Your task to perform on an android device: change notifications settings Image 0: 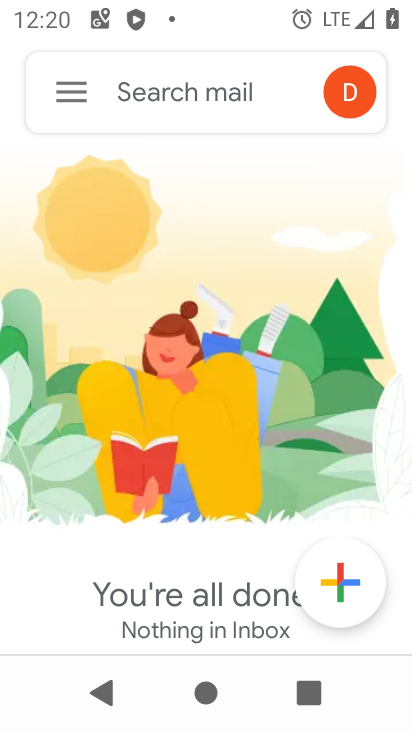
Step 0: press home button
Your task to perform on an android device: change notifications settings Image 1: 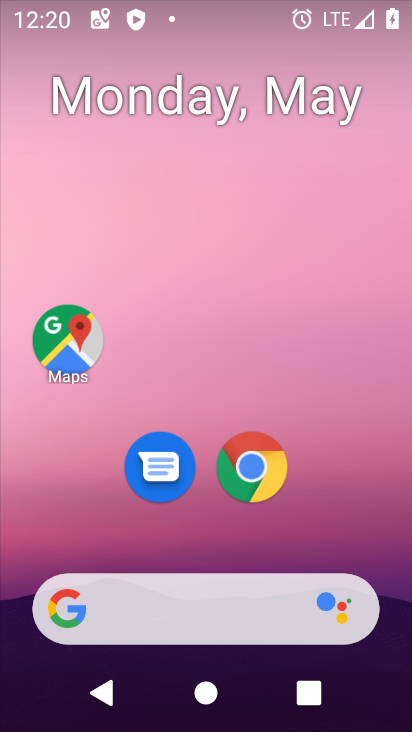
Step 1: drag from (353, 555) to (324, 0)
Your task to perform on an android device: change notifications settings Image 2: 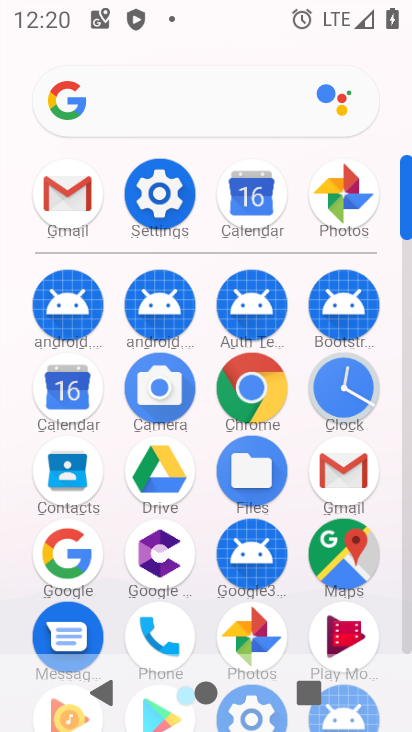
Step 2: click (163, 202)
Your task to perform on an android device: change notifications settings Image 3: 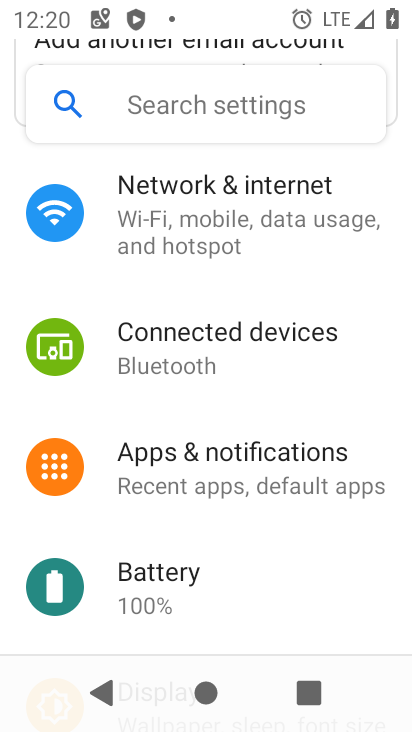
Step 3: click (259, 461)
Your task to perform on an android device: change notifications settings Image 4: 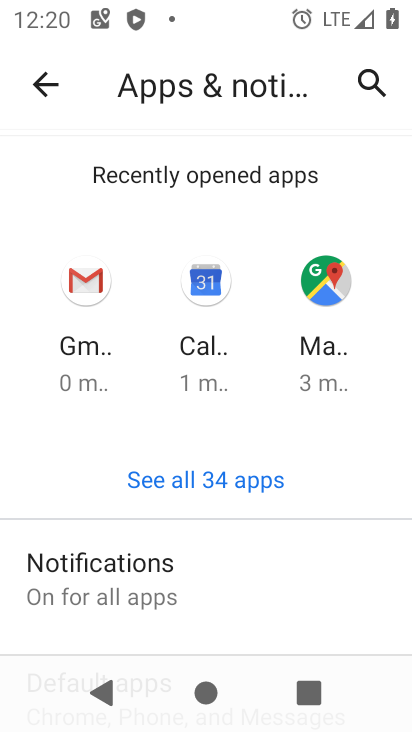
Step 4: click (118, 590)
Your task to perform on an android device: change notifications settings Image 5: 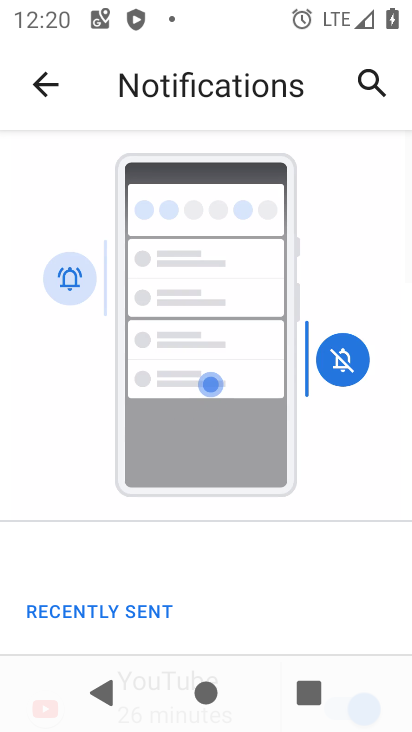
Step 5: drag from (252, 596) to (239, 103)
Your task to perform on an android device: change notifications settings Image 6: 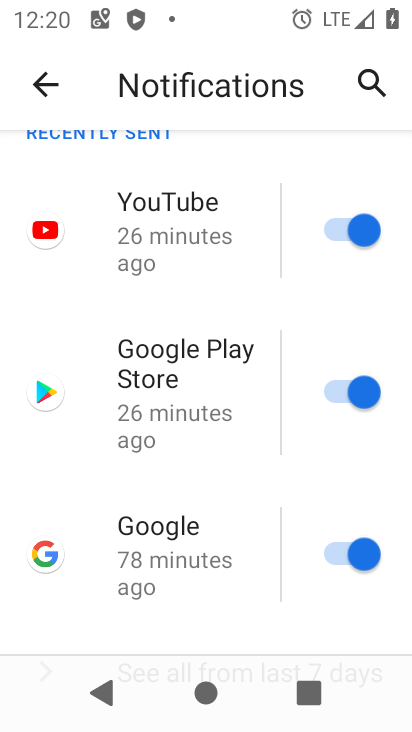
Step 6: drag from (216, 526) to (216, 113)
Your task to perform on an android device: change notifications settings Image 7: 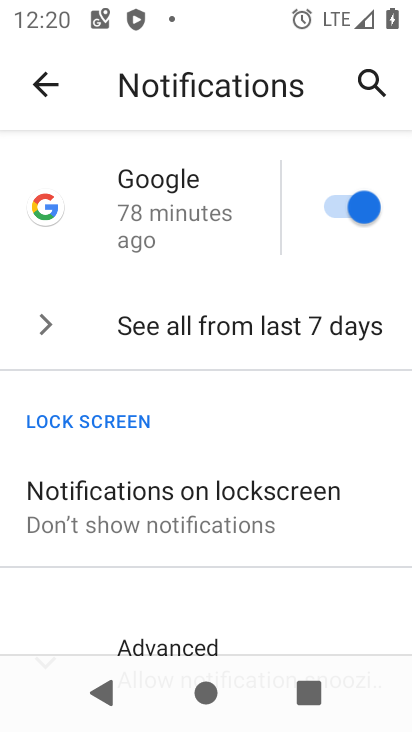
Step 7: click (219, 329)
Your task to perform on an android device: change notifications settings Image 8: 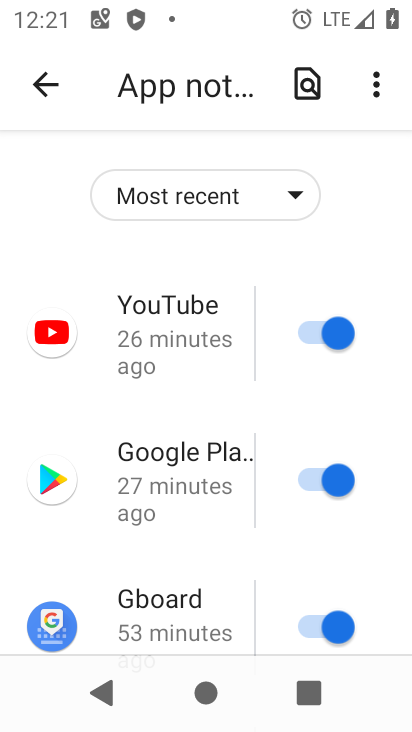
Step 8: click (288, 201)
Your task to perform on an android device: change notifications settings Image 9: 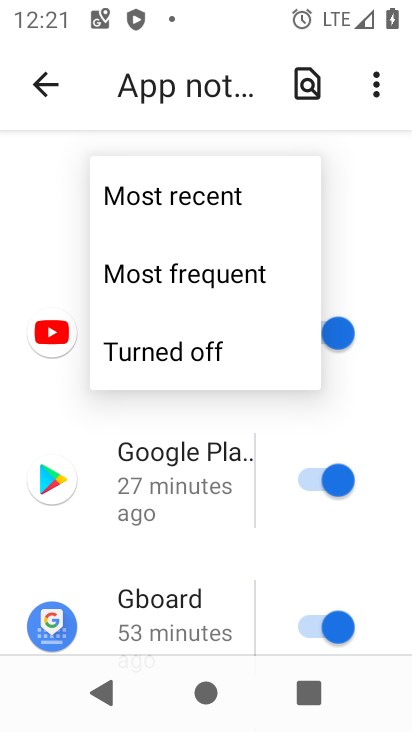
Step 9: click (166, 289)
Your task to perform on an android device: change notifications settings Image 10: 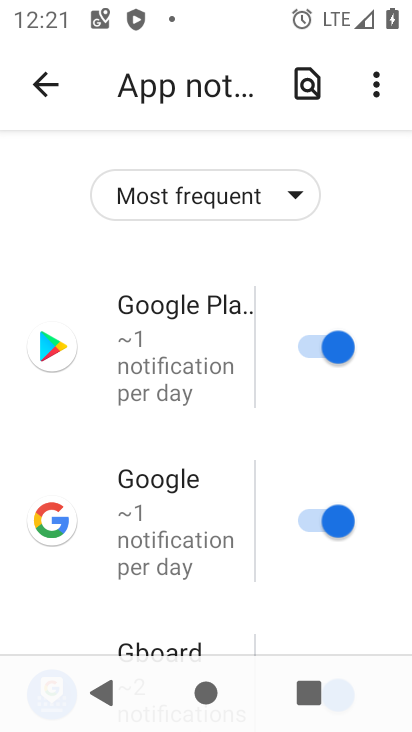
Step 10: task complete